Your task to perform on an android device: Show me the alarms in the clock app Image 0: 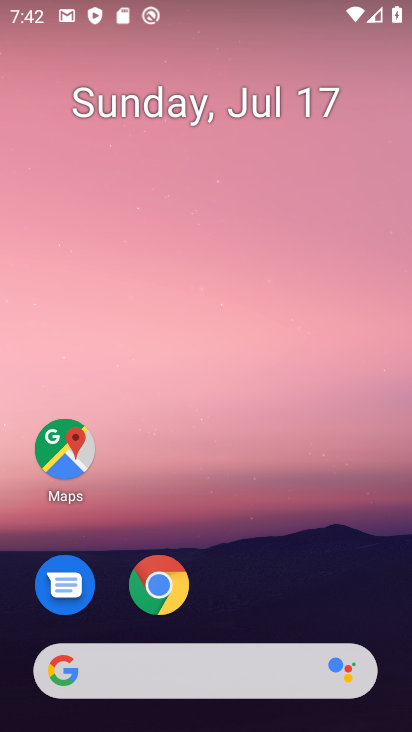
Step 0: drag from (225, 682) to (390, 86)
Your task to perform on an android device: Show me the alarms in the clock app Image 1: 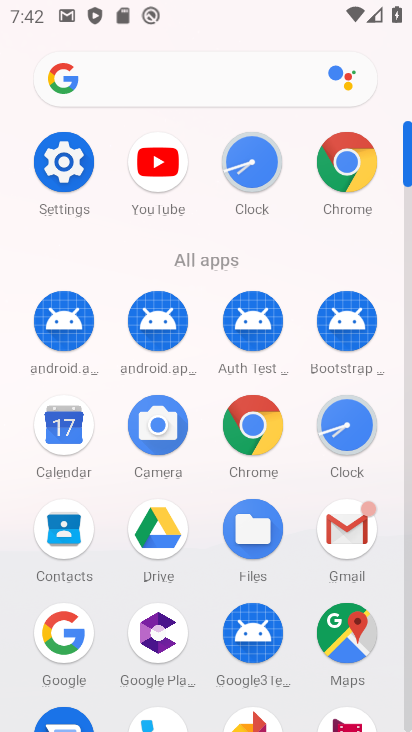
Step 1: click (353, 444)
Your task to perform on an android device: Show me the alarms in the clock app Image 2: 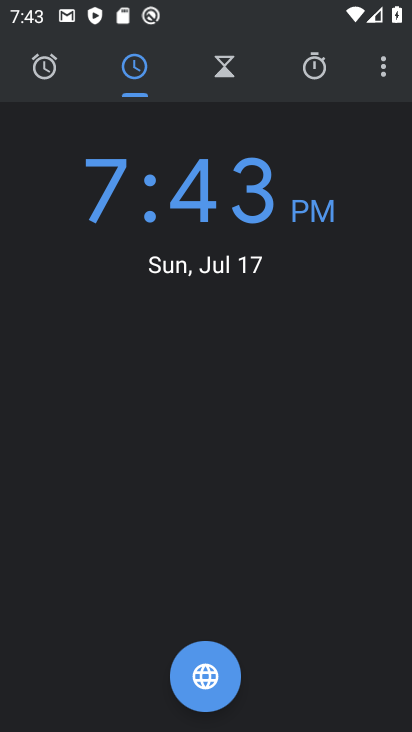
Step 2: click (50, 72)
Your task to perform on an android device: Show me the alarms in the clock app Image 3: 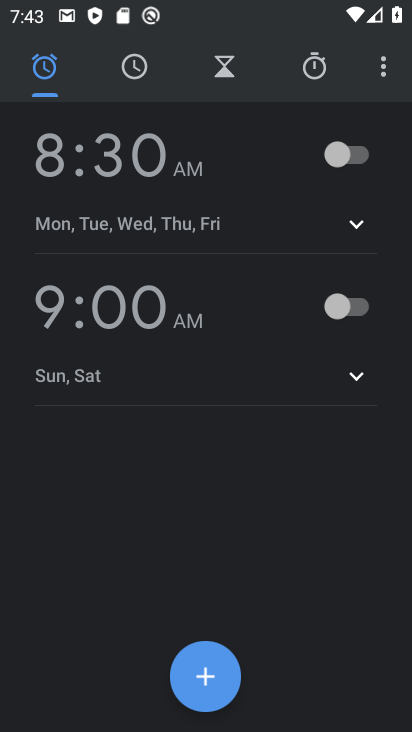
Step 3: task complete